Your task to perform on an android device: Open ESPN.com Image 0: 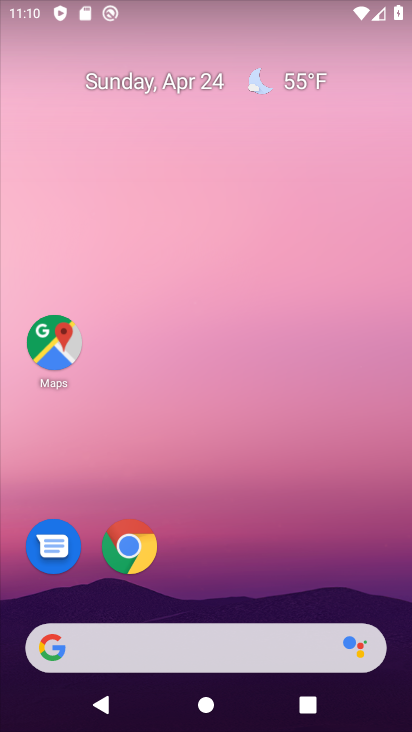
Step 0: click (130, 549)
Your task to perform on an android device: Open ESPN.com Image 1: 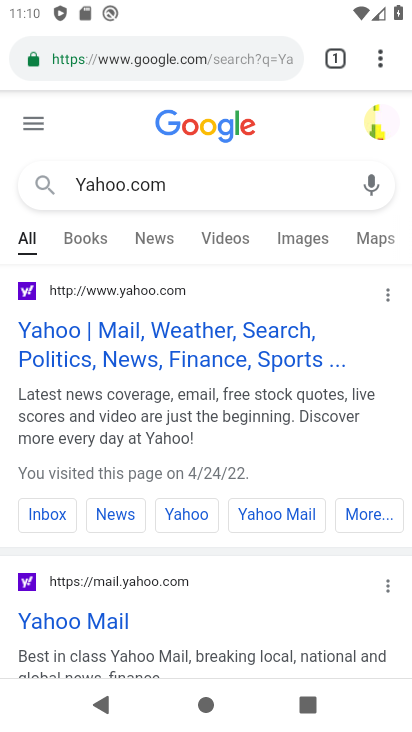
Step 1: click (254, 58)
Your task to perform on an android device: Open ESPN.com Image 2: 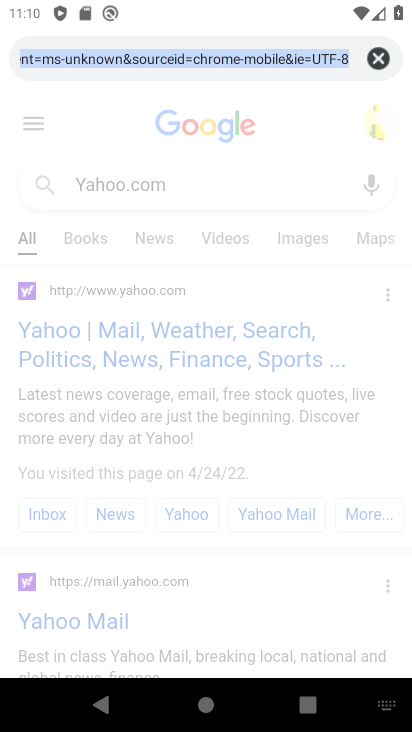
Step 2: click (376, 59)
Your task to perform on an android device: Open ESPN.com Image 3: 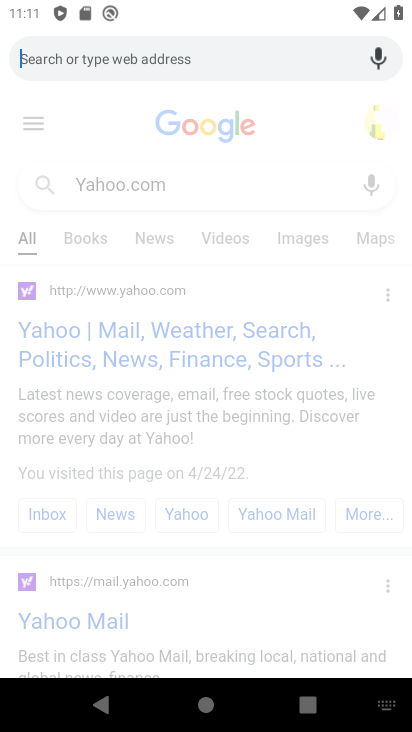
Step 3: type "ESPN.com"
Your task to perform on an android device: Open ESPN.com Image 4: 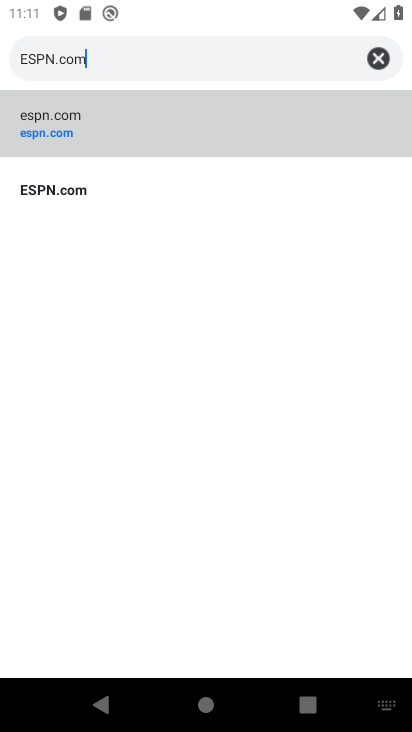
Step 4: click (76, 195)
Your task to perform on an android device: Open ESPN.com Image 5: 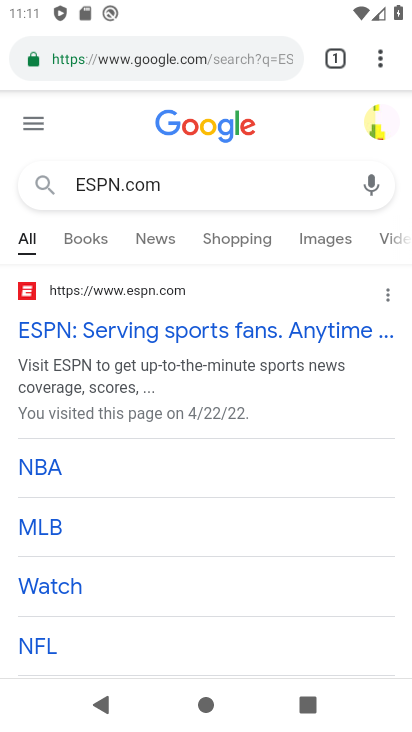
Step 5: task complete